Your task to perform on an android device: check storage Image 0: 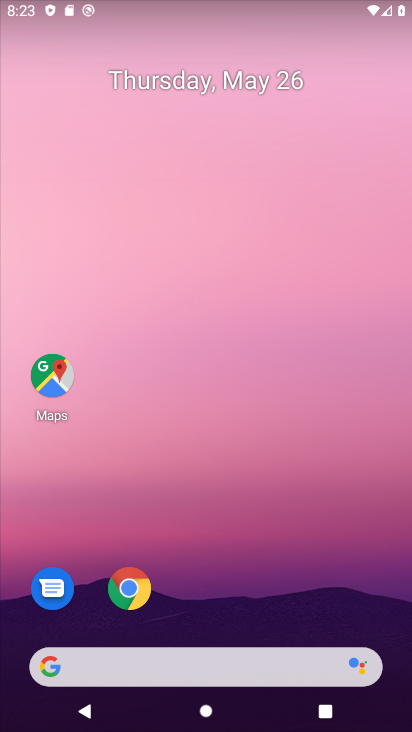
Step 0: drag from (184, 523) to (172, 76)
Your task to perform on an android device: check storage Image 1: 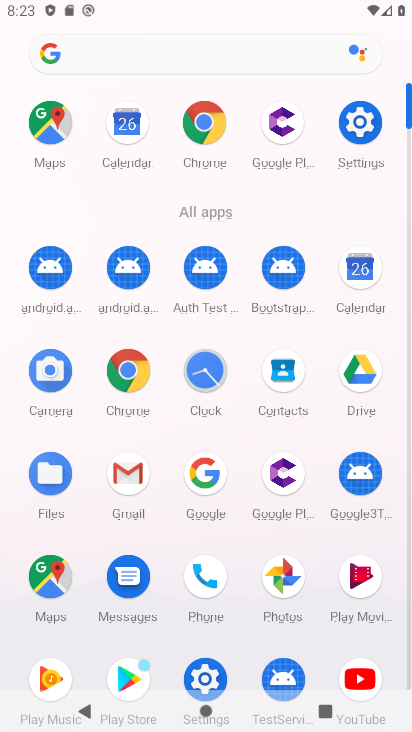
Step 1: click (343, 115)
Your task to perform on an android device: check storage Image 2: 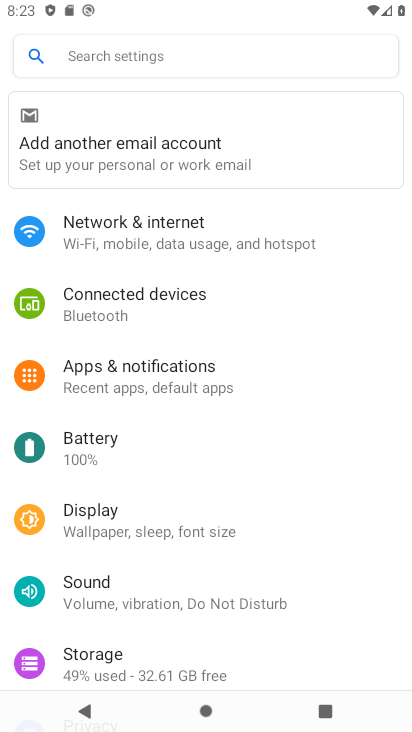
Step 2: click (122, 658)
Your task to perform on an android device: check storage Image 3: 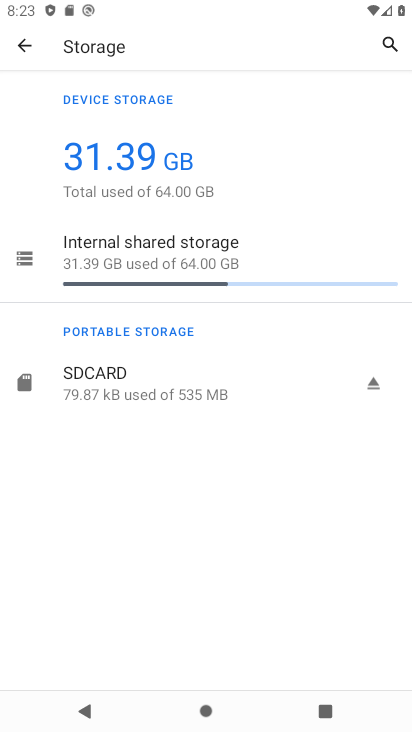
Step 3: task complete